Your task to perform on an android device: Open Google Chrome and open the bookmarks view Image 0: 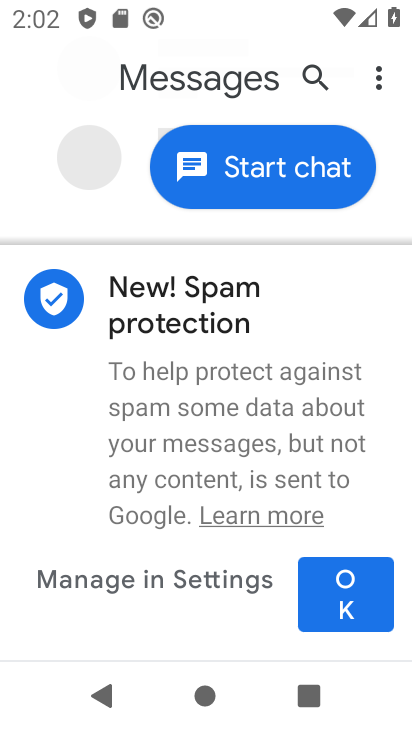
Step 0: press home button
Your task to perform on an android device: Open Google Chrome and open the bookmarks view Image 1: 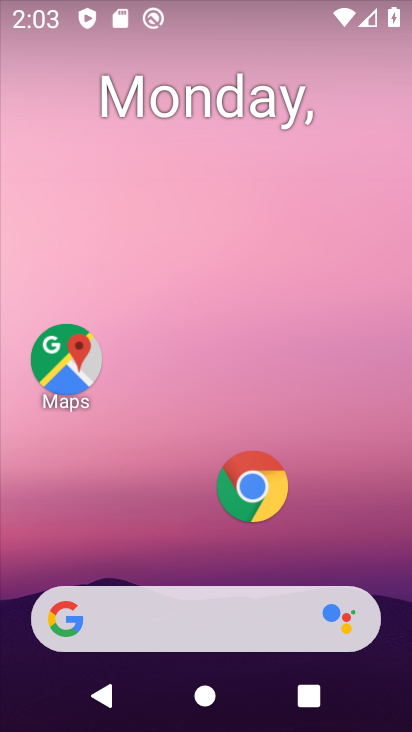
Step 1: click (253, 478)
Your task to perform on an android device: Open Google Chrome and open the bookmarks view Image 2: 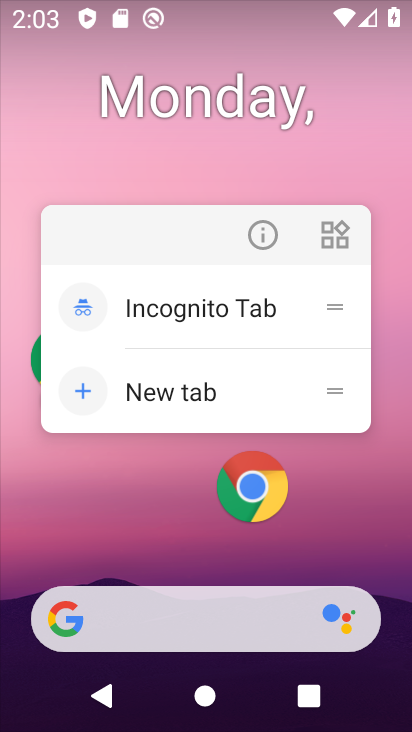
Step 2: click (254, 486)
Your task to perform on an android device: Open Google Chrome and open the bookmarks view Image 3: 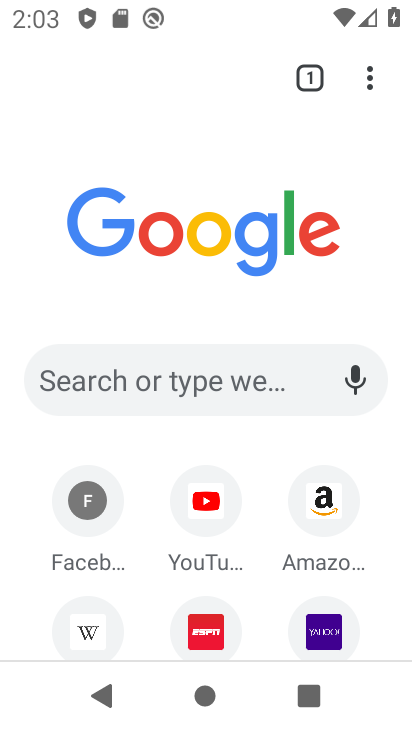
Step 3: click (378, 70)
Your task to perform on an android device: Open Google Chrome and open the bookmarks view Image 4: 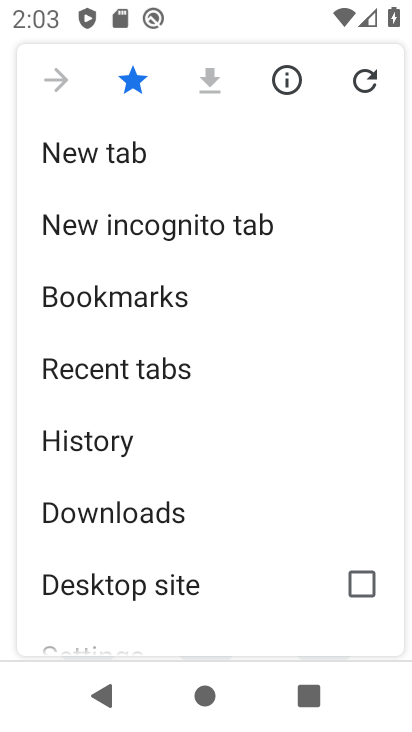
Step 4: click (123, 309)
Your task to perform on an android device: Open Google Chrome and open the bookmarks view Image 5: 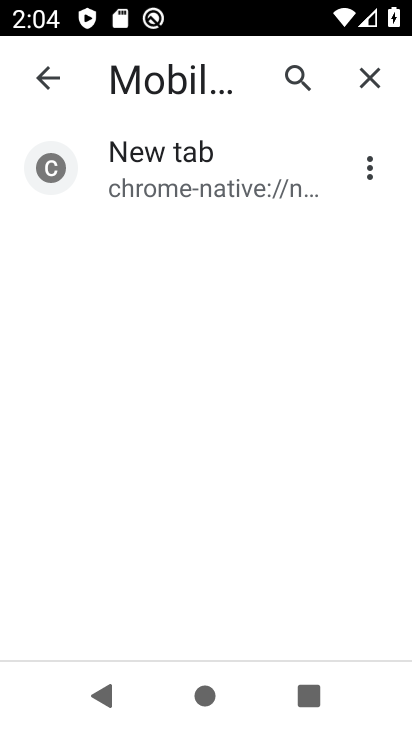
Step 5: task complete